Your task to perform on an android device: Search for vegetarian restaurants on Maps Image 0: 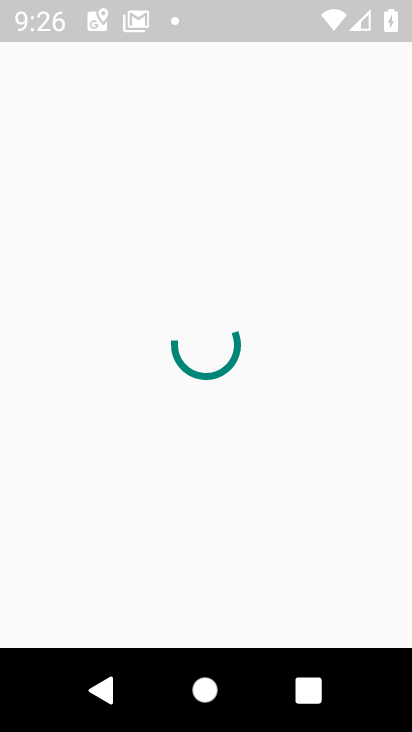
Step 0: click (62, 330)
Your task to perform on an android device: Search for vegetarian restaurants on Maps Image 1: 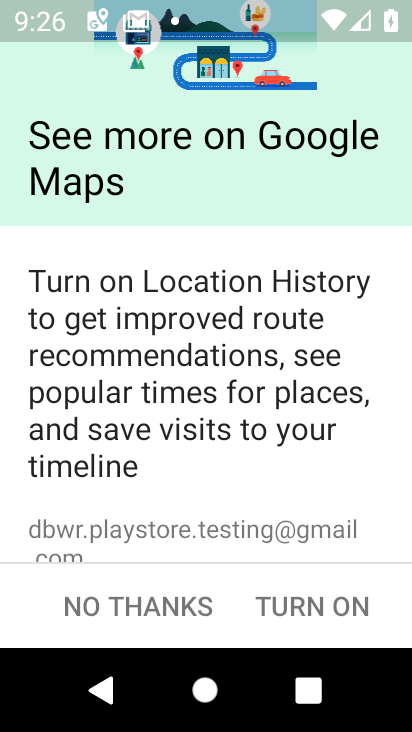
Step 1: click (320, 607)
Your task to perform on an android device: Search for vegetarian restaurants on Maps Image 2: 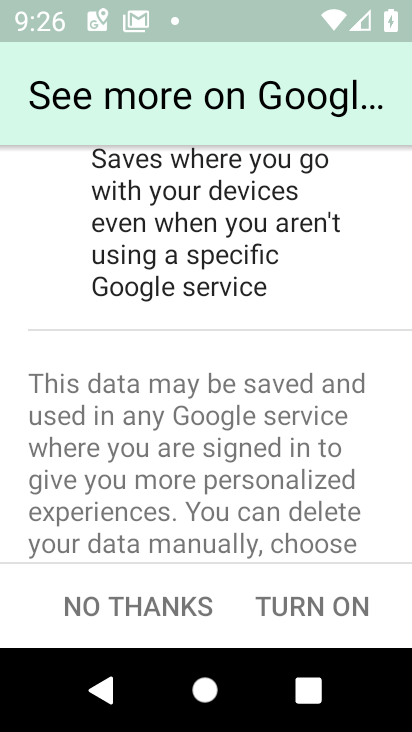
Step 2: click (285, 605)
Your task to perform on an android device: Search for vegetarian restaurants on Maps Image 3: 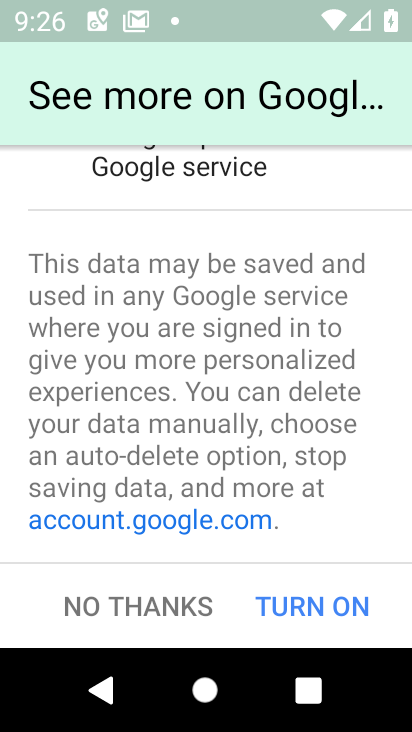
Step 3: click (281, 612)
Your task to perform on an android device: Search for vegetarian restaurants on Maps Image 4: 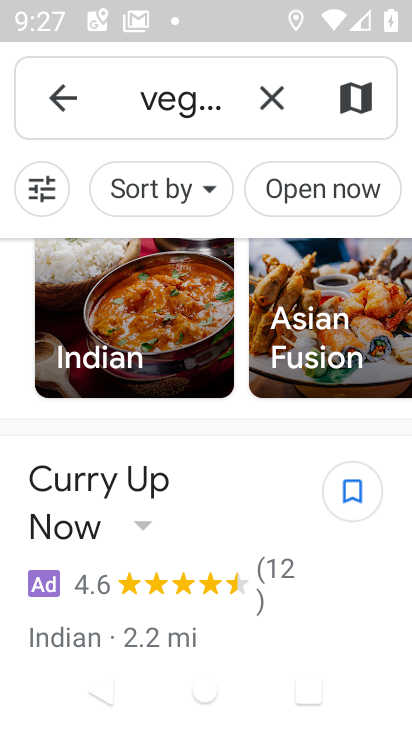
Step 4: task complete